Your task to perform on an android device: open a bookmark in the chrome app Image 0: 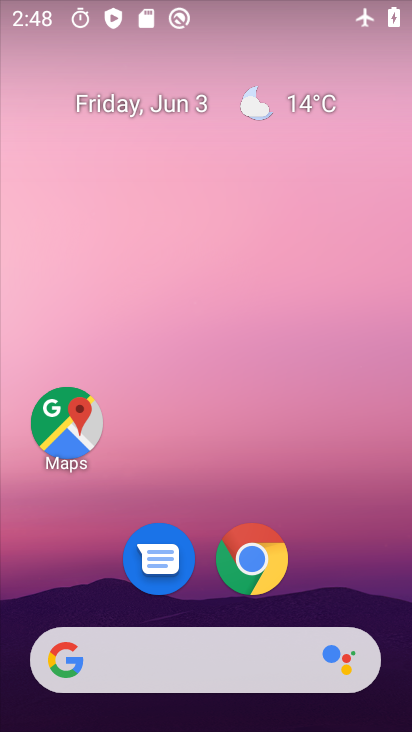
Step 0: click (232, 553)
Your task to perform on an android device: open a bookmark in the chrome app Image 1: 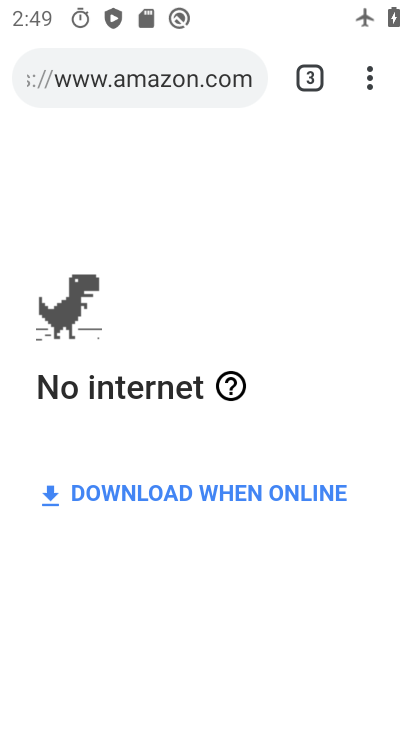
Step 1: task complete